Your task to perform on an android device: Open network settings Image 0: 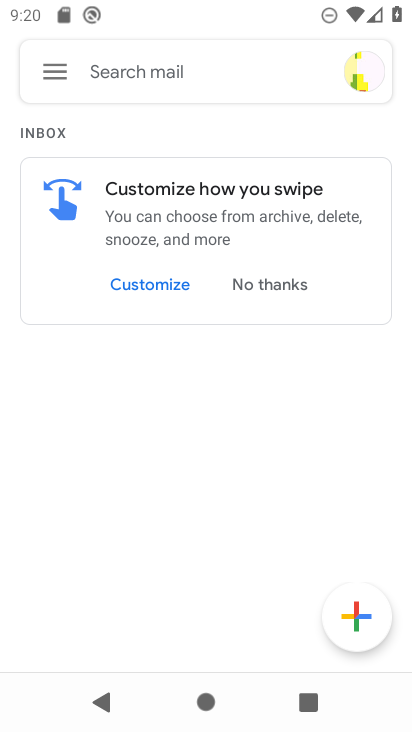
Step 0: press home button
Your task to perform on an android device: Open network settings Image 1: 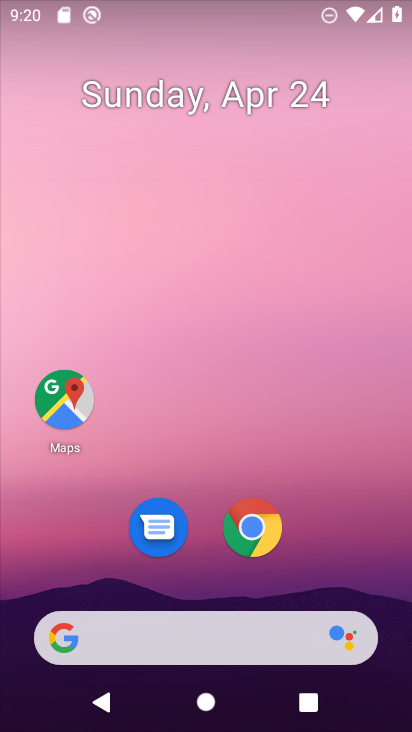
Step 1: drag from (386, 620) to (244, 31)
Your task to perform on an android device: Open network settings Image 2: 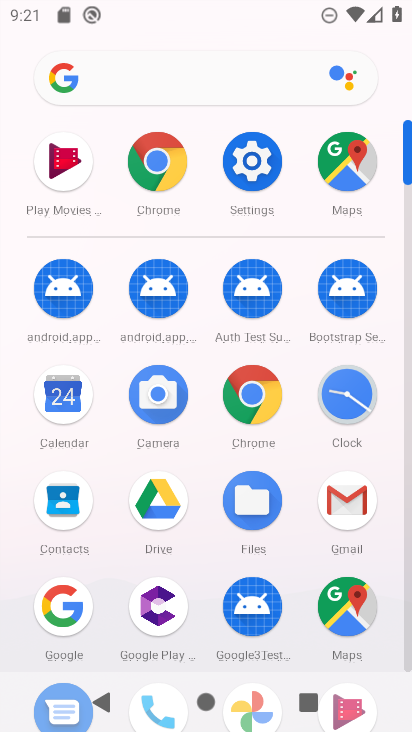
Step 2: click (255, 164)
Your task to perform on an android device: Open network settings Image 3: 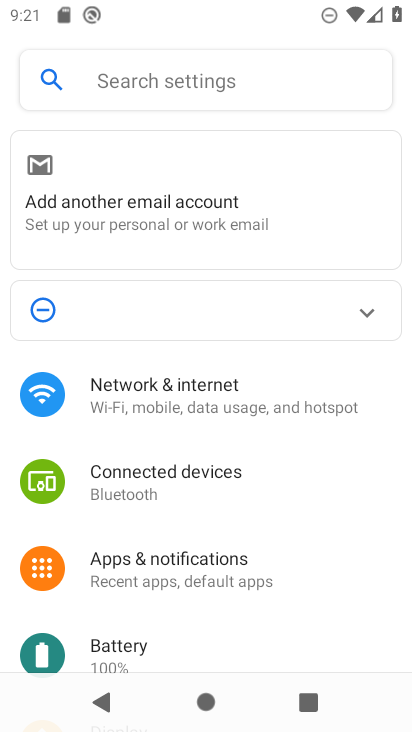
Step 3: click (261, 391)
Your task to perform on an android device: Open network settings Image 4: 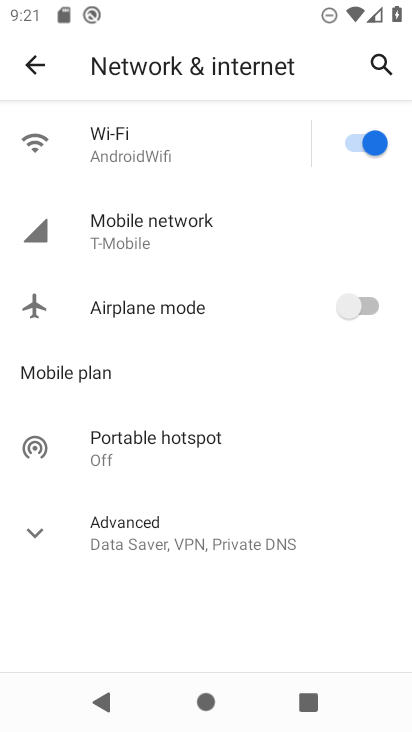
Step 4: task complete